Your task to perform on an android device: Search for "acer nitro" on target.com, select the first entry, add it to the cart, then select checkout. Image 0: 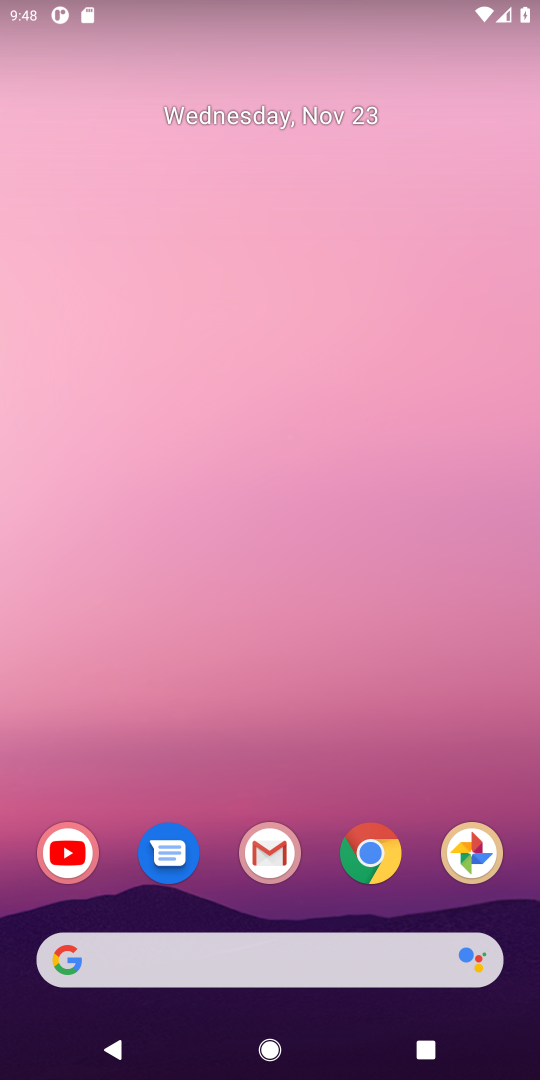
Step 0: click (369, 858)
Your task to perform on an android device: Search for "acer nitro" on target.com, select the first entry, add it to the cart, then select checkout. Image 1: 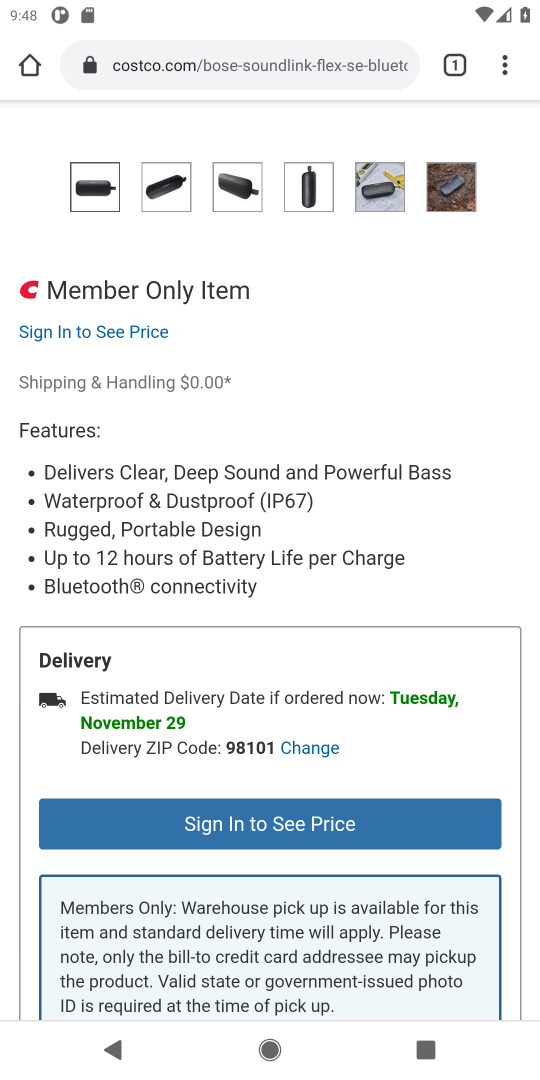
Step 1: click (213, 63)
Your task to perform on an android device: Search for "acer nitro" on target.com, select the first entry, add it to the cart, then select checkout. Image 2: 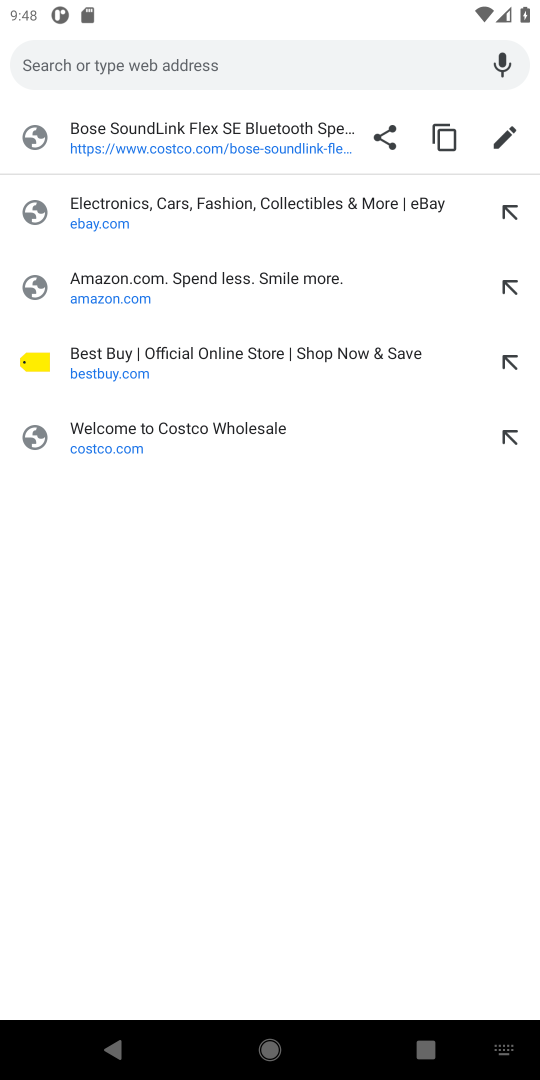
Step 2: type "target.com"
Your task to perform on an android device: Search for "acer nitro" on target.com, select the first entry, add it to the cart, then select checkout. Image 3: 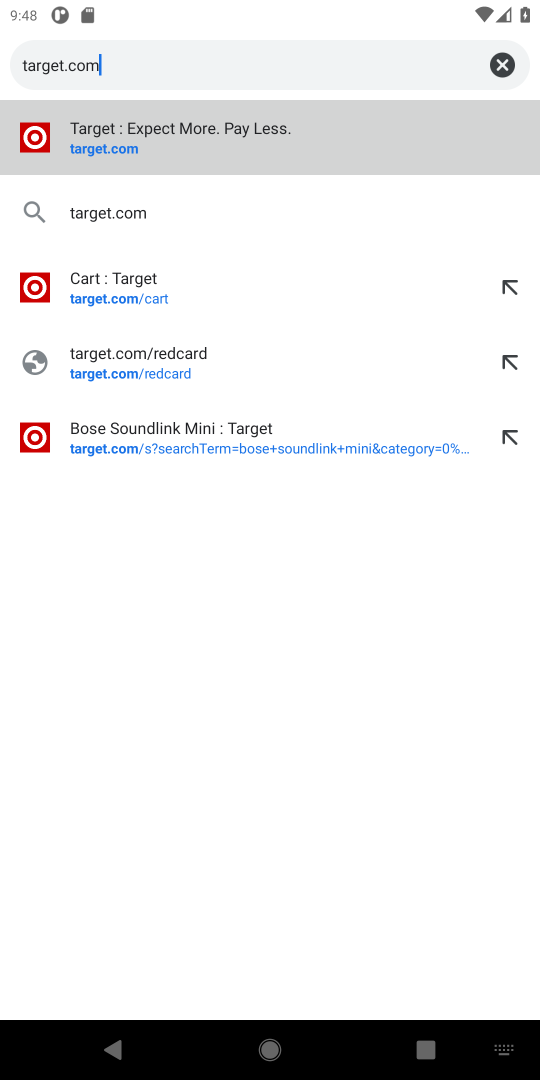
Step 3: click (87, 159)
Your task to perform on an android device: Search for "acer nitro" on target.com, select the first entry, add it to the cart, then select checkout. Image 4: 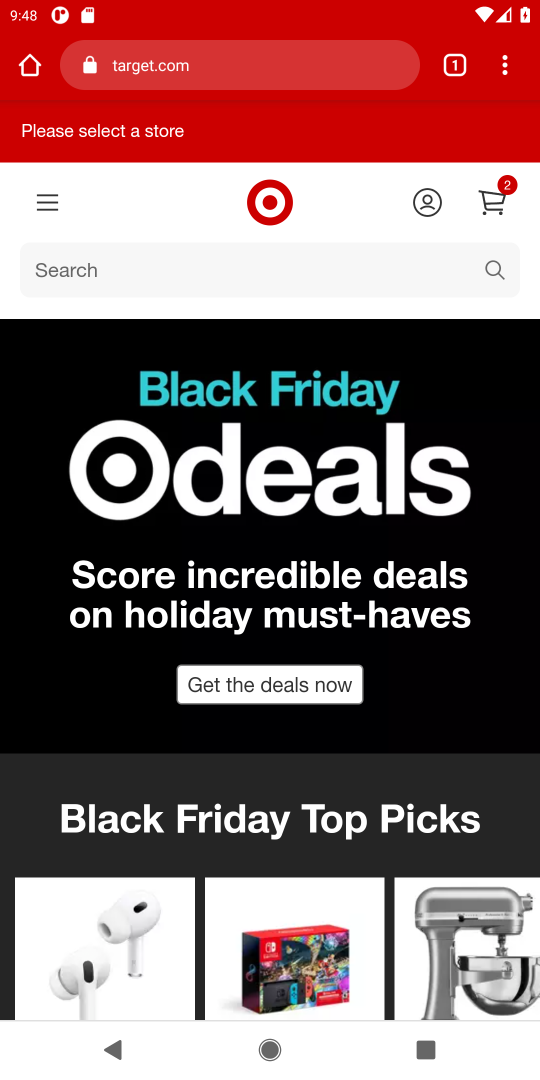
Step 4: click (498, 274)
Your task to perform on an android device: Search for "acer nitro" on target.com, select the first entry, add it to the cart, then select checkout. Image 5: 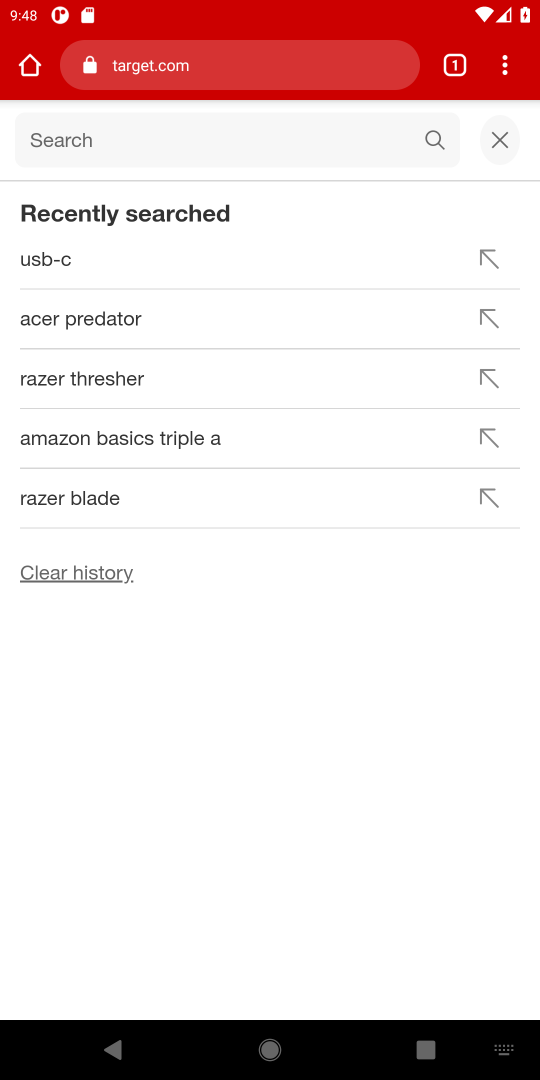
Step 5: type "acer nitro"
Your task to perform on an android device: Search for "acer nitro" on target.com, select the first entry, add it to the cart, then select checkout. Image 6: 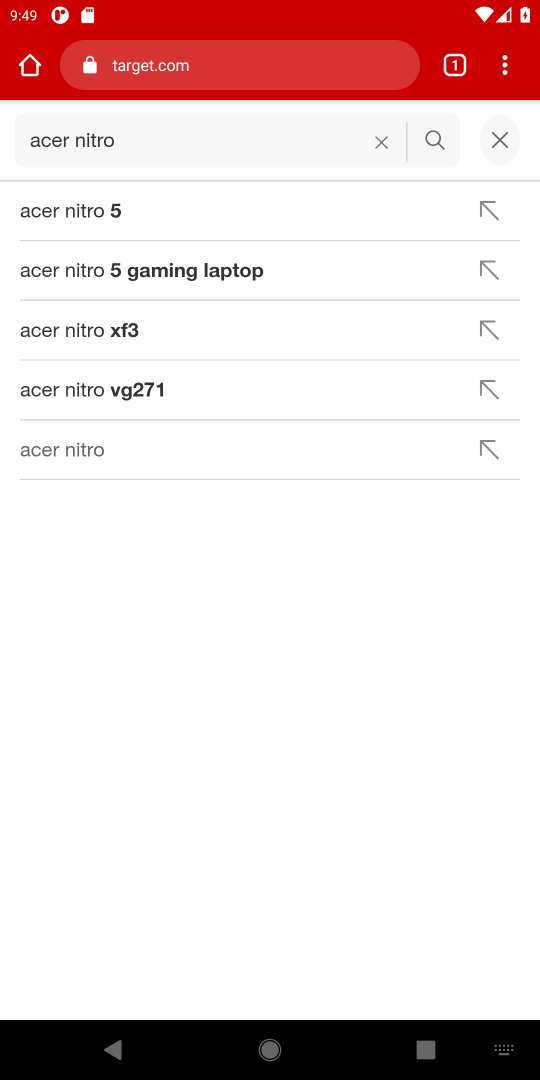
Step 6: click (87, 449)
Your task to perform on an android device: Search for "acer nitro" on target.com, select the first entry, add it to the cart, then select checkout. Image 7: 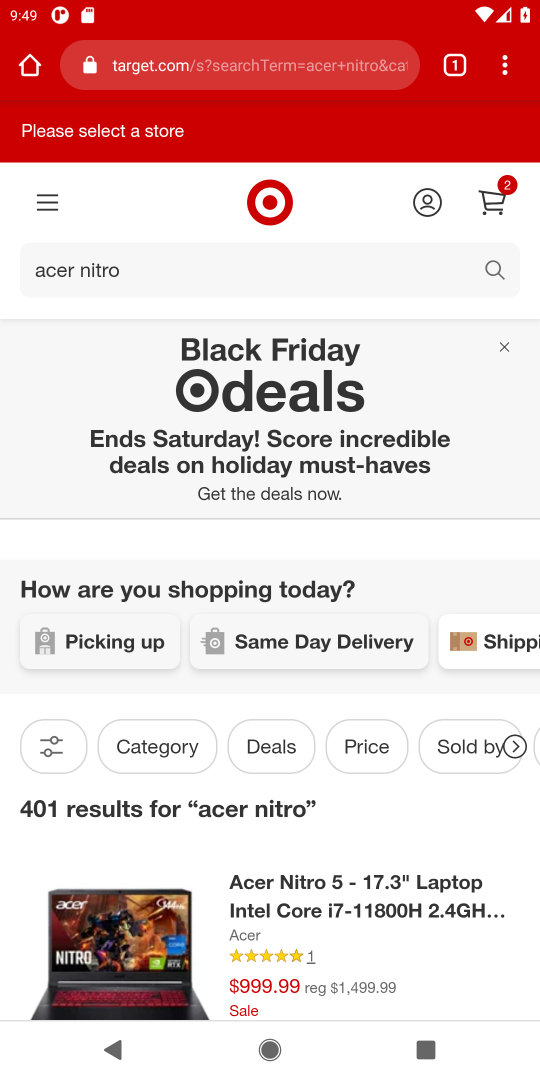
Step 7: drag from (191, 931) to (175, 570)
Your task to perform on an android device: Search for "acer nitro" on target.com, select the first entry, add it to the cart, then select checkout. Image 8: 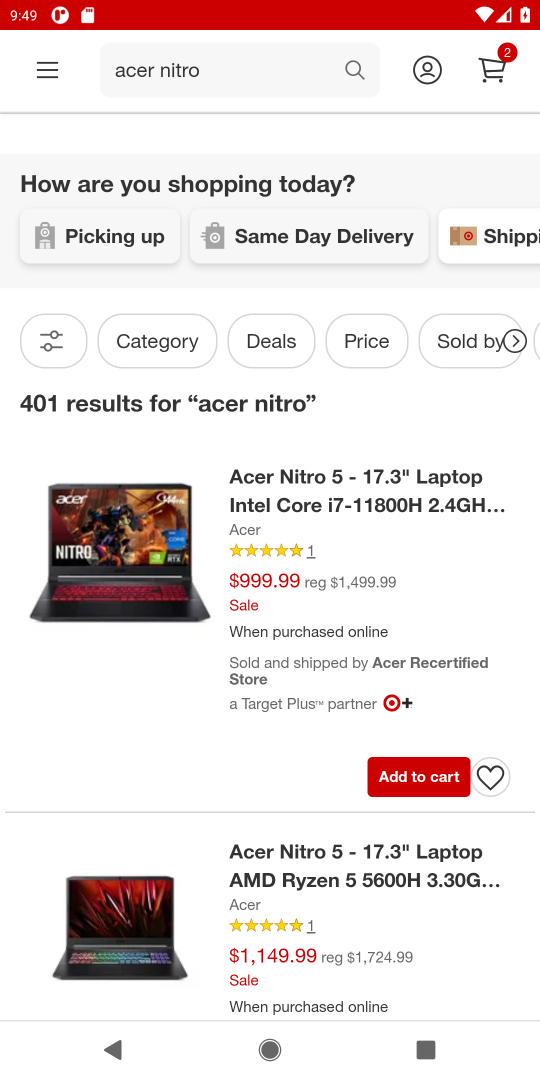
Step 8: click (425, 767)
Your task to perform on an android device: Search for "acer nitro" on target.com, select the first entry, add it to the cart, then select checkout. Image 9: 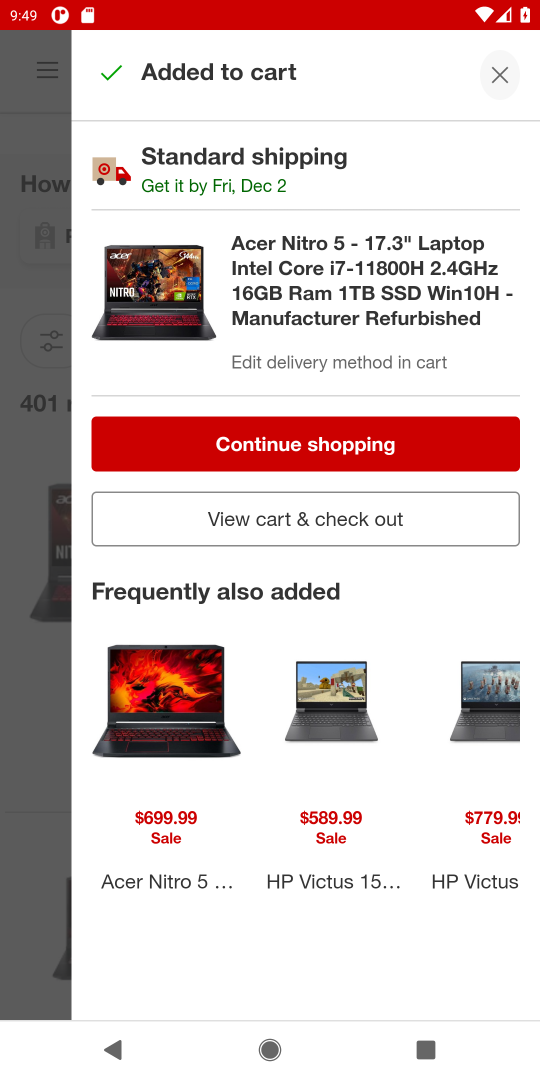
Step 9: click (289, 513)
Your task to perform on an android device: Search for "acer nitro" on target.com, select the first entry, add it to the cart, then select checkout. Image 10: 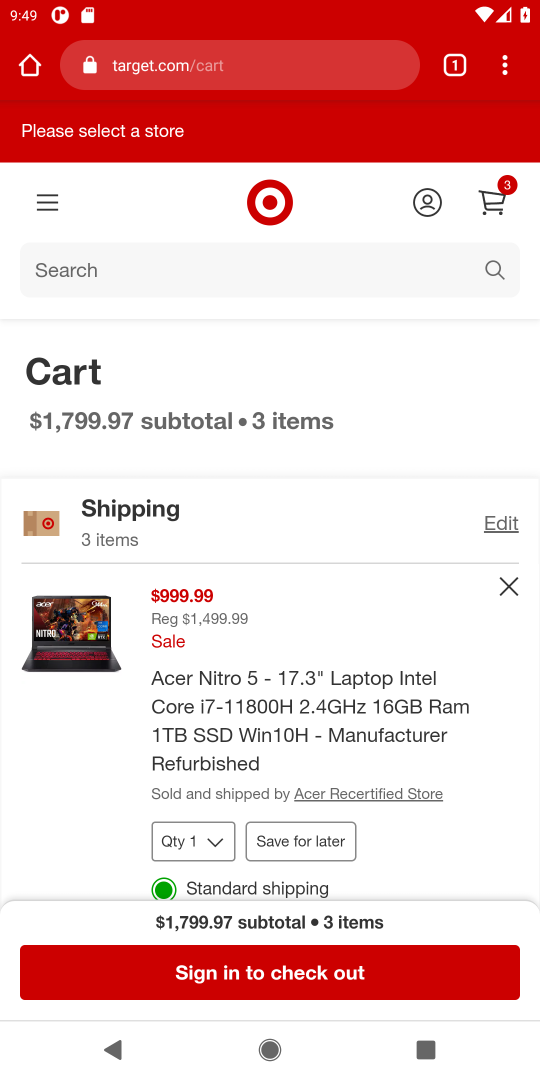
Step 10: click (291, 985)
Your task to perform on an android device: Search for "acer nitro" on target.com, select the first entry, add it to the cart, then select checkout. Image 11: 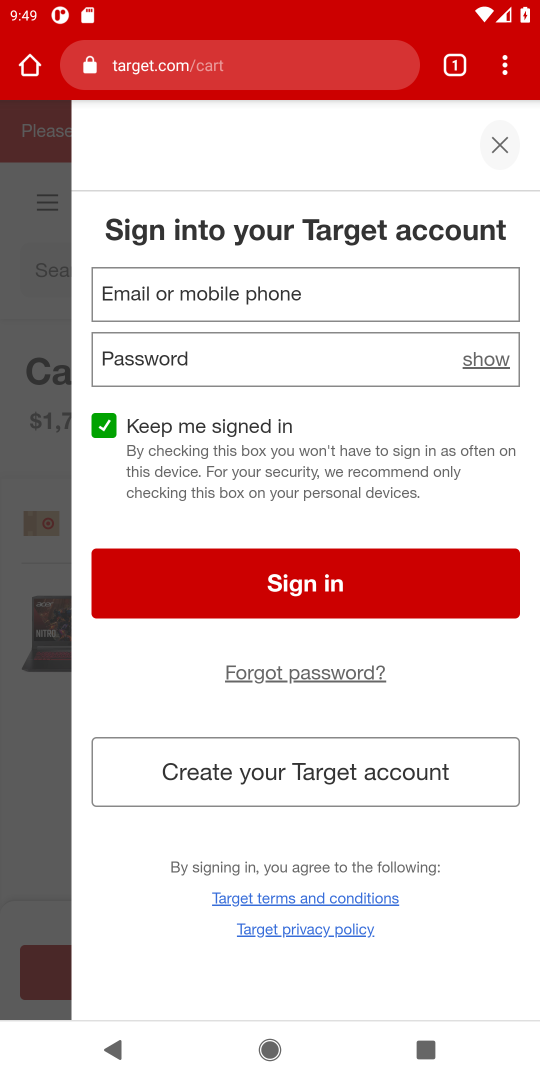
Step 11: task complete